Your task to perform on an android device: open chrome privacy settings Image 0: 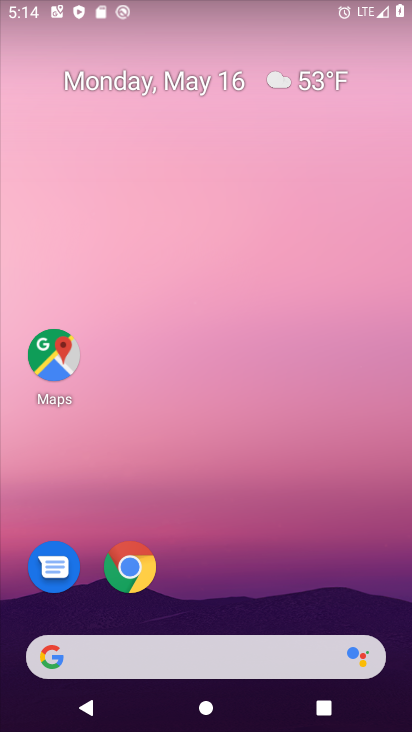
Step 0: drag from (198, 696) to (205, 5)
Your task to perform on an android device: open chrome privacy settings Image 1: 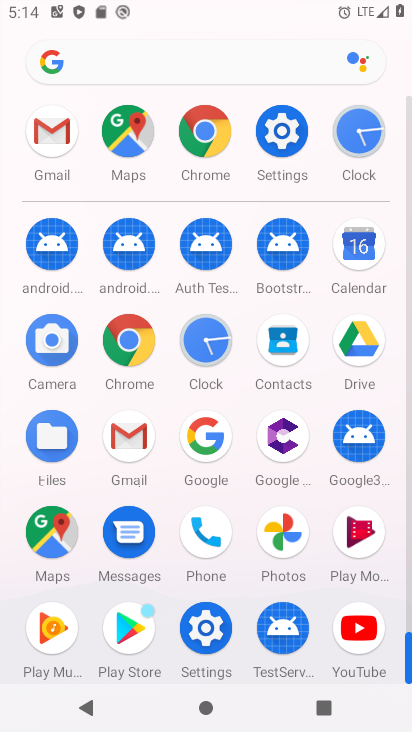
Step 1: click (285, 134)
Your task to perform on an android device: open chrome privacy settings Image 2: 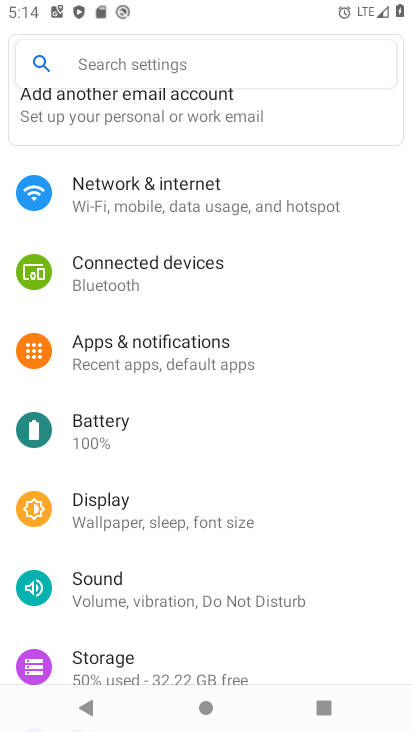
Step 2: press home button
Your task to perform on an android device: open chrome privacy settings Image 3: 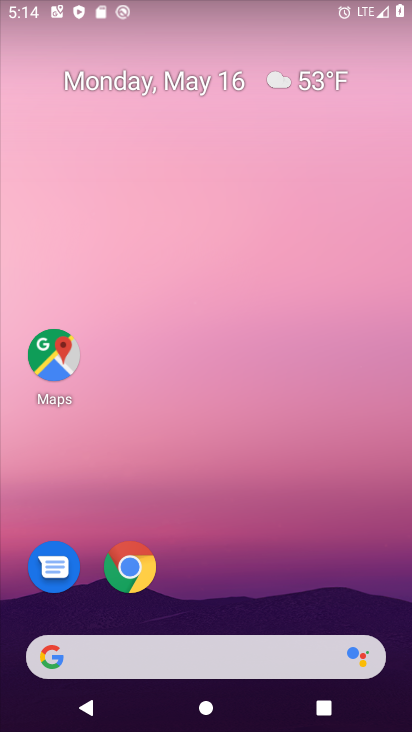
Step 3: drag from (270, 639) to (274, 50)
Your task to perform on an android device: open chrome privacy settings Image 4: 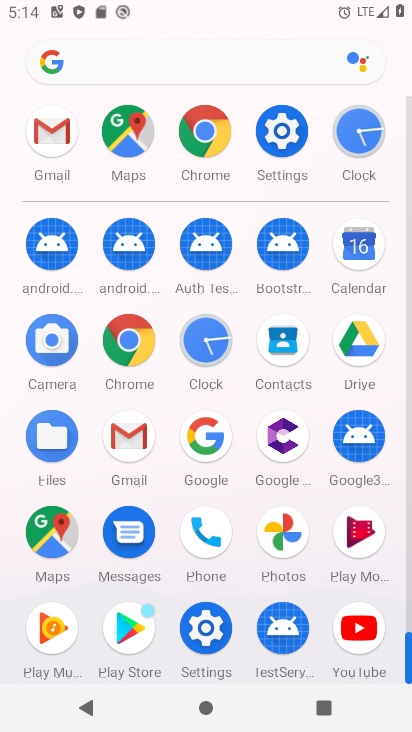
Step 4: click (117, 354)
Your task to perform on an android device: open chrome privacy settings Image 5: 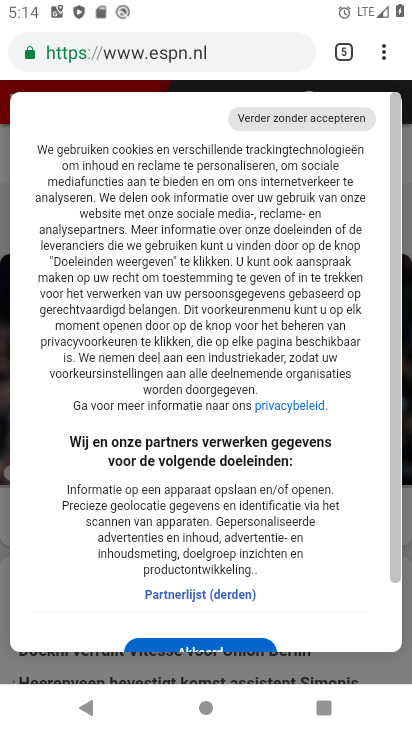
Step 5: drag from (376, 60) to (219, 615)
Your task to perform on an android device: open chrome privacy settings Image 6: 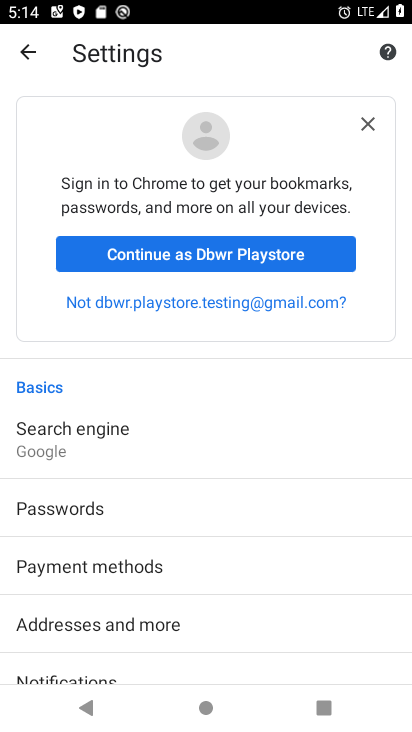
Step 6: drag from (130, 692) to (130, 140)
Your task to perform on an android device: open chrome privacy settings Image 7: 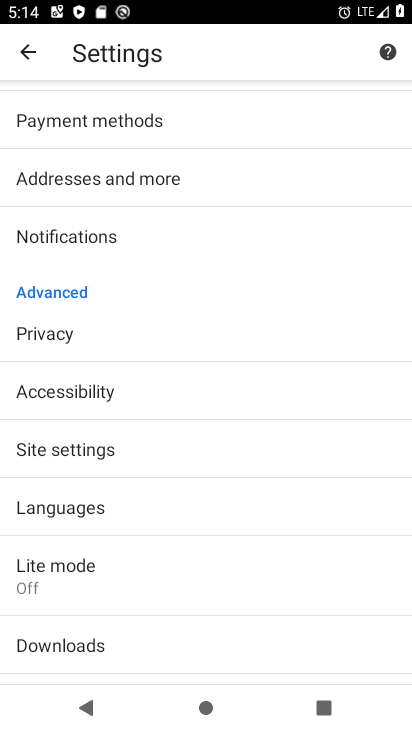
Step 7: click (71, 342)
Your task to perform on an android device: open chrome privacy settings Image 8: 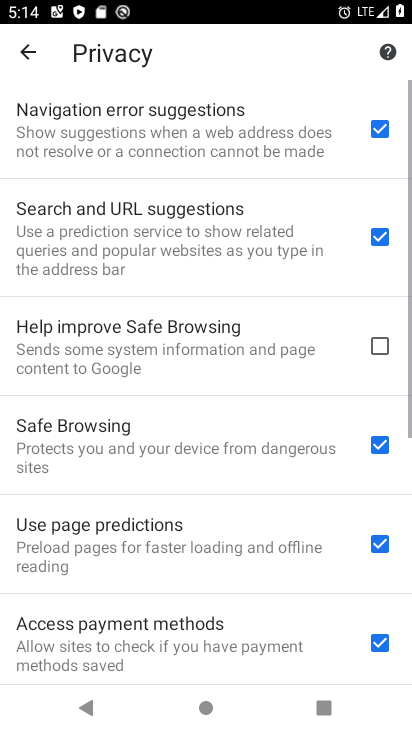
Step 8: task complete